Your task to perform on an android device: Open eBay Image 0: 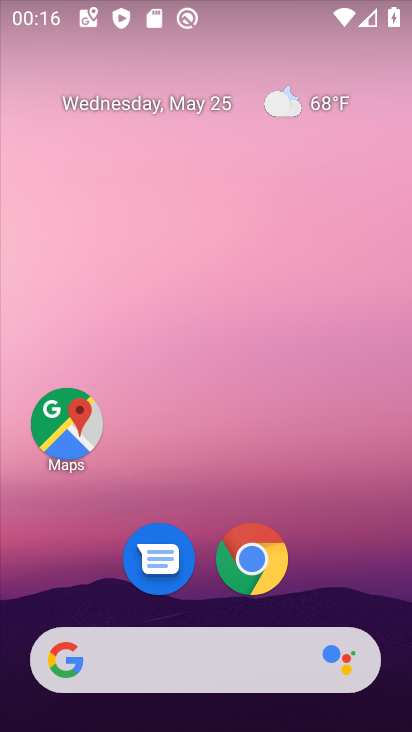
Step 0: click (250, 559)
Your task to perform on an android device: Open eBay Image 1: 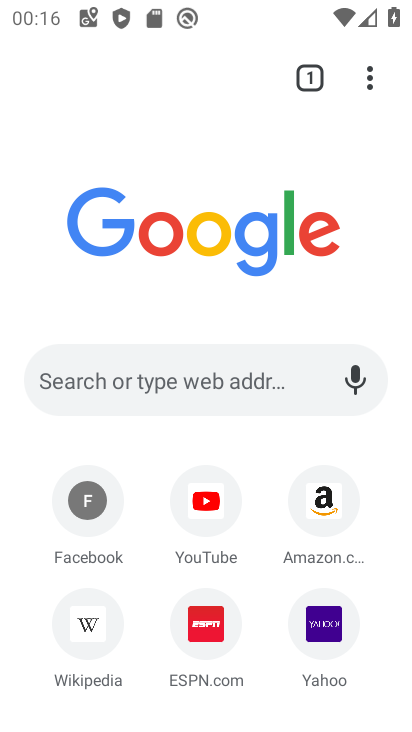
Step 1: click (160, 373)
Your task to perform on an android device: Open eBay Image 2: 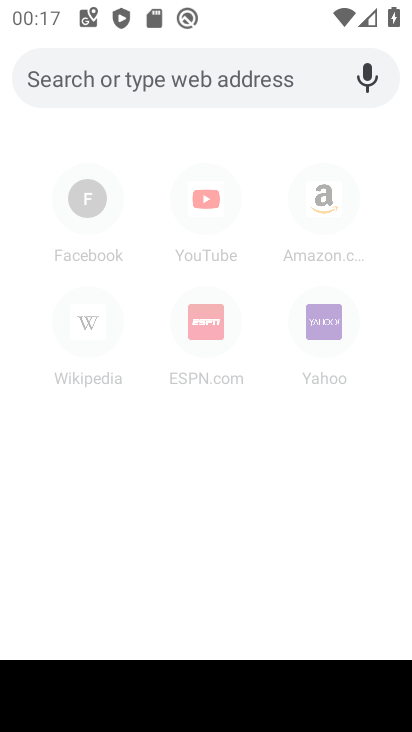
Step 2: type "ebay"
Your task to perform on an android device: Open eBay Image 3: 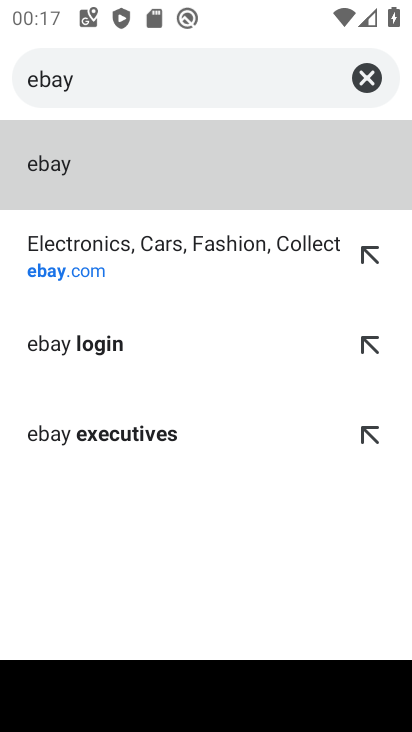
Step 3: click (76, 193)
Your task to perform on an android device: Open eBay Image 4: 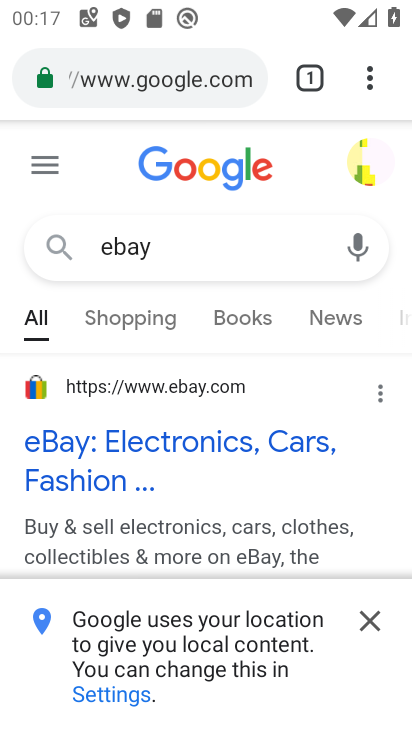
Step 4: click (368, 620)
Your task to perform on an android device: Open eBay Image 5: 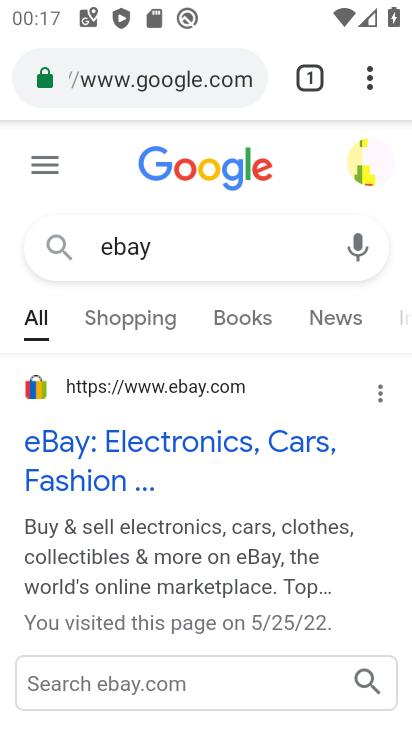
Step 5: click (105, 447)
Your task to perform on an android device: Open eBay Image 6: 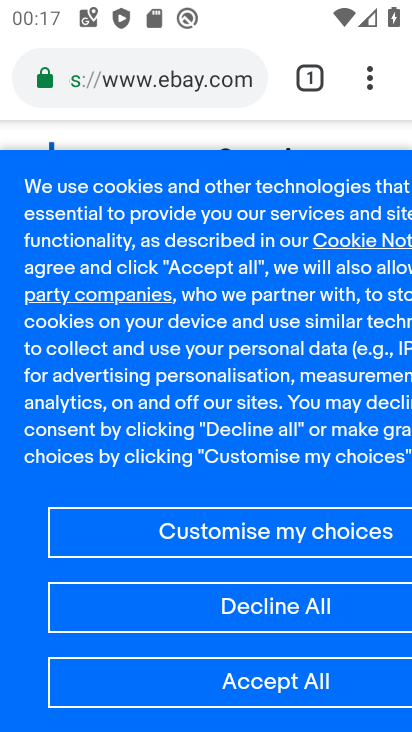
Step 6: task complete